Your task to perform on an android device: empty trash in the gmail app Image 0: 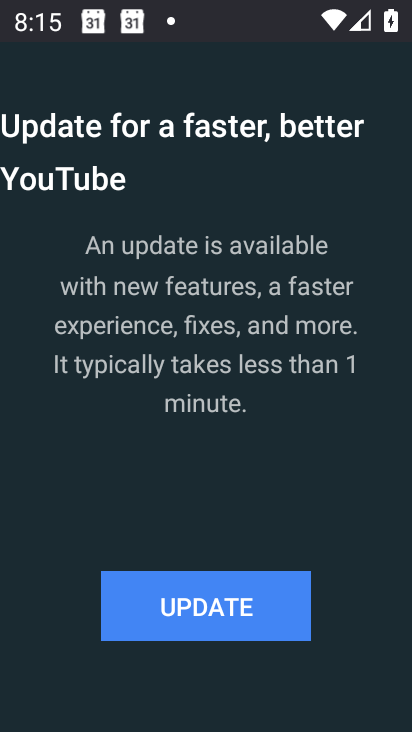
Step 0: press home button
Your task to perform on an android device: empty trash in the gmail app Image 1: 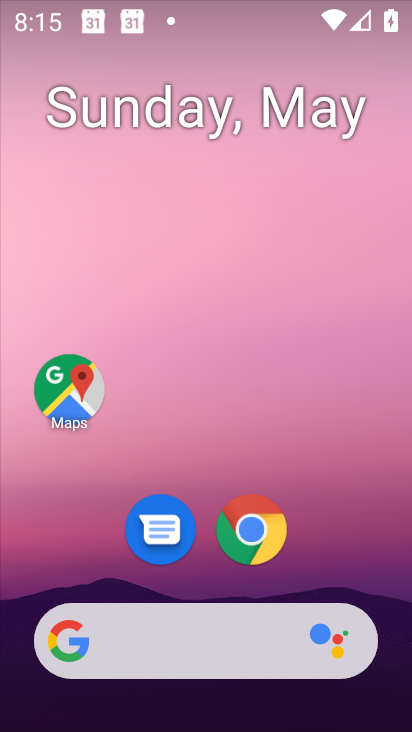
Step 1: drag from (343, 559) to (327, 0)
Your task to perform on an android device: empty trash in the gmail app Image 2: 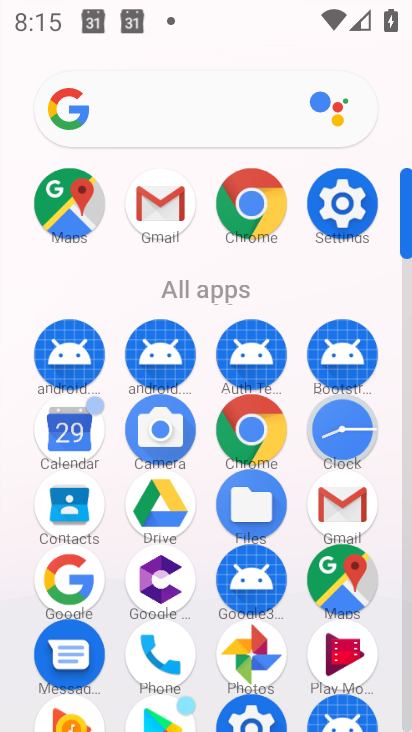
Step 2: click (162, 195)
Your task to perform on an android device: empty trash in the gmail app Image 3: 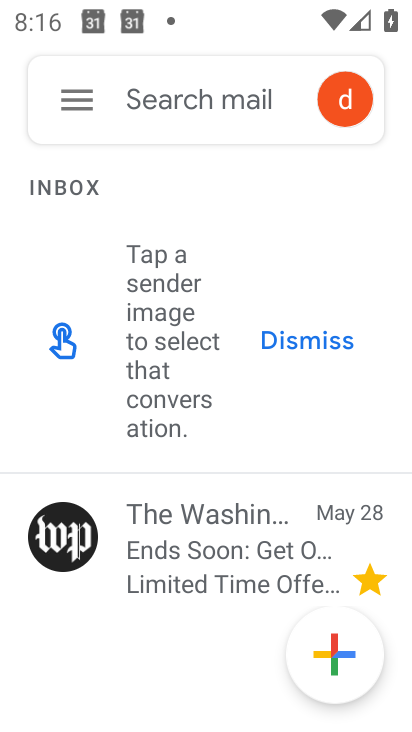
Step 3: click (92, 112)
Your task to perform on an android device: empty trash in the gmail app Image 4: 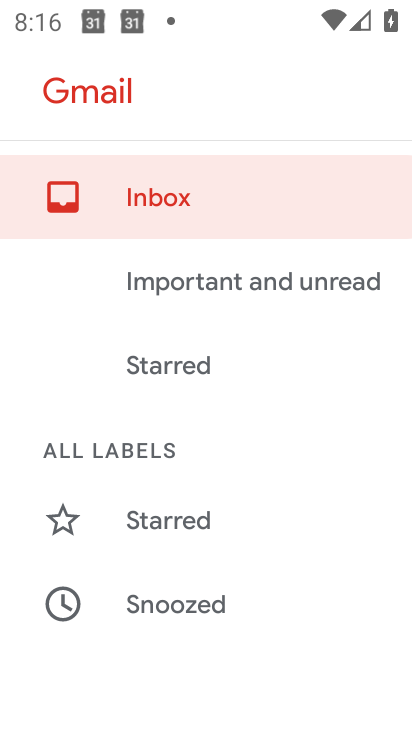
Step 4: drag from (225, 582) to (269, 303)
Your task to perform on an android device: empty trash in the gmail app Image 5: 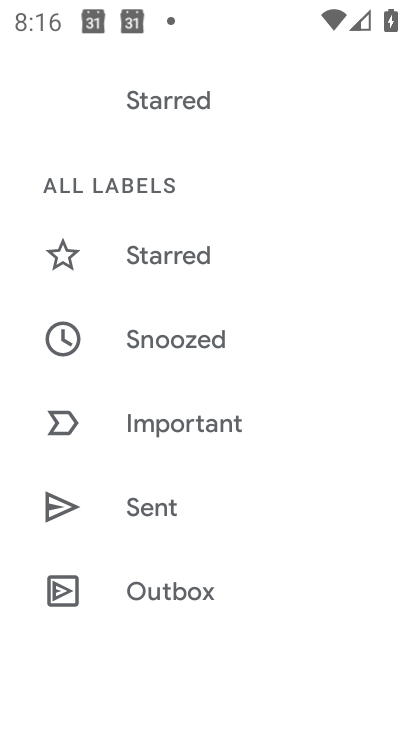
Step 5: drag from (306, 665) to (273, 360)
Your task to perform on an android device: empty trash in the gmail app Image 6: 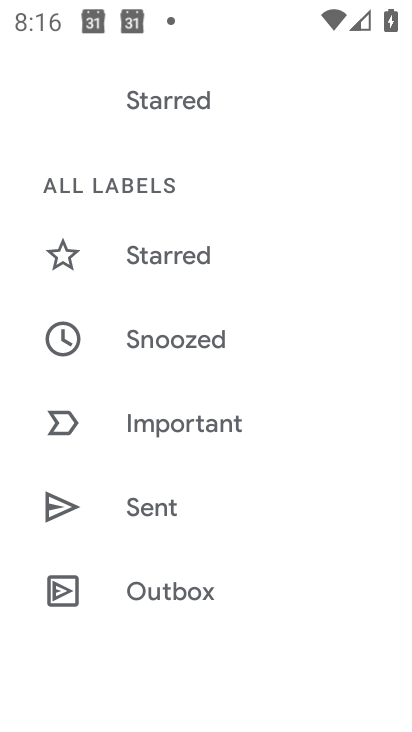
Step 6: drag from (211, 560) to (292, 176)
Your task to perform on an android device: empty trash in the gmail app Image 7: 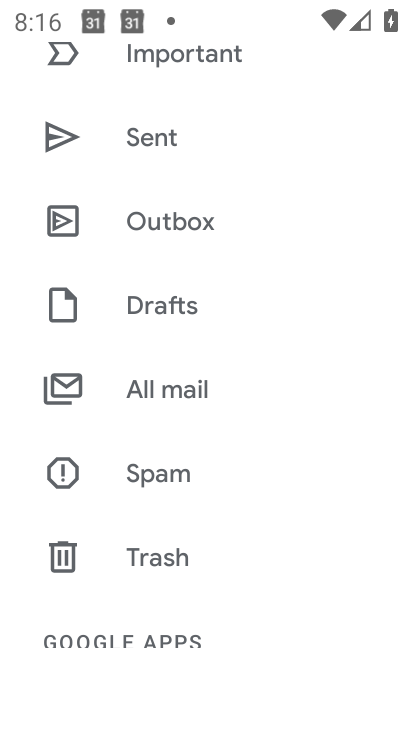
Step 7: drag from (213, 613) to (217, 215)
Your task to perform on an android device: empty trash in the gmail app Image 8: 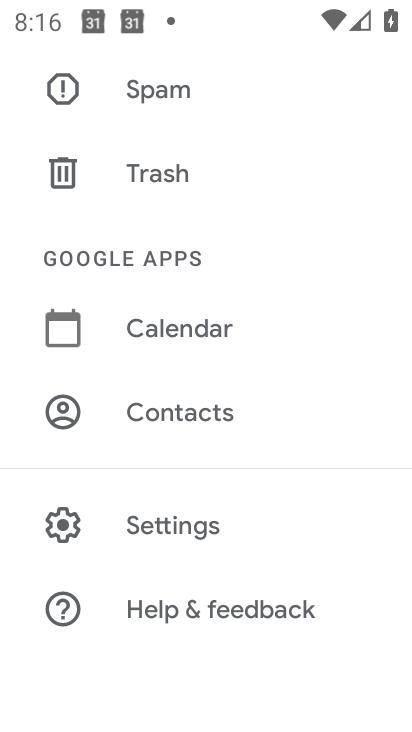
Step 8: drag from (322, 618) to (304, 317)
Your task to perform on an android device: empty trash in the gmail app Image 9: 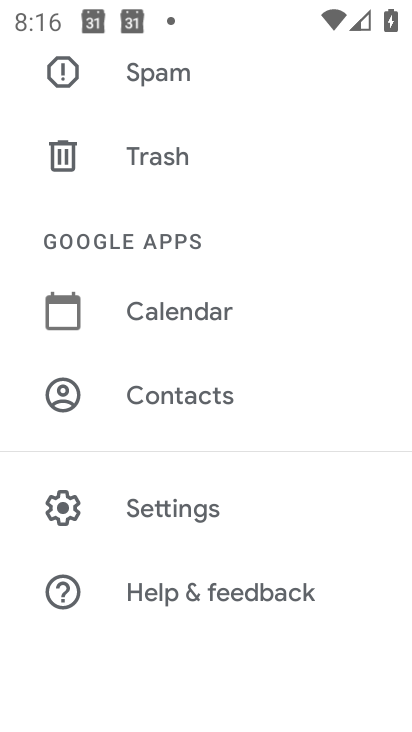
Step 9: click (268, 152)
Your task to perform on an android device: empty trash in the gmail app Image 10: 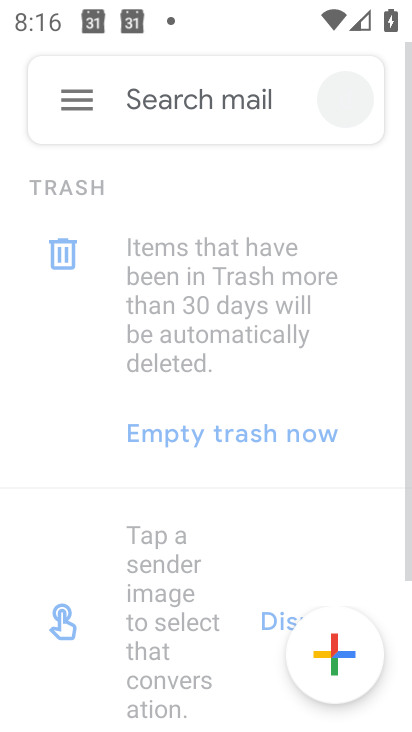
Step 10: task complete